Your task to perform on an android device: What's the weather? Image 0: 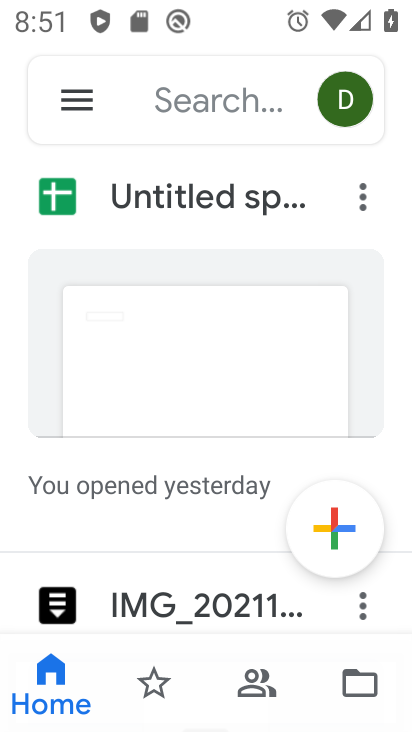
Step 0: press home button
Your task to perform on an android device: What's the weather? Image 1: 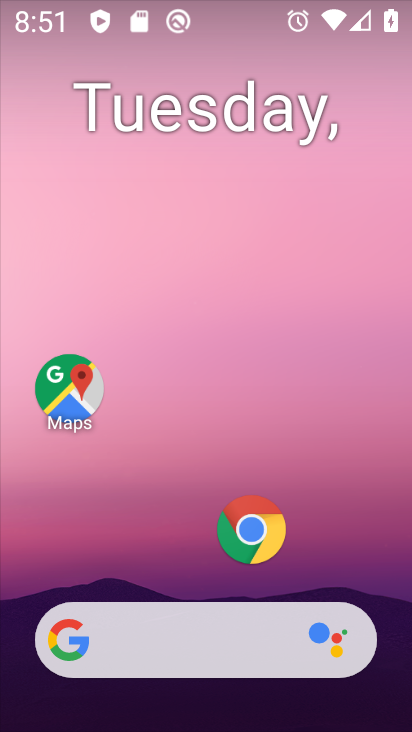
Step 1: drag from (19, 240) to (409, 205)
Your task to perform on an android device: What's the weather? Image 2: 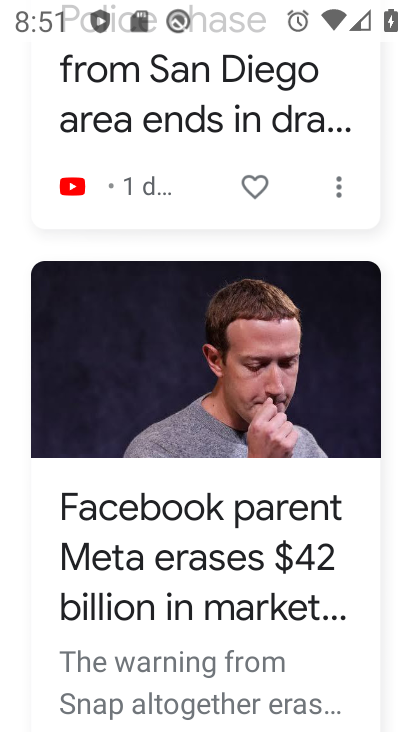
Step 2: drag from (210, 120) to (197, 456)
Your task to perform on an android device: What's the weather? Image 3: 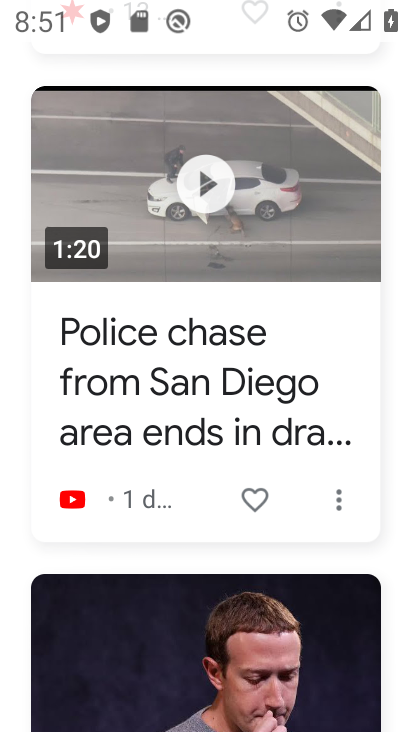
Step 3: drag from (253, 172) to (260, 625)
Your task to perform on an android device: What's the weather? Image 4: 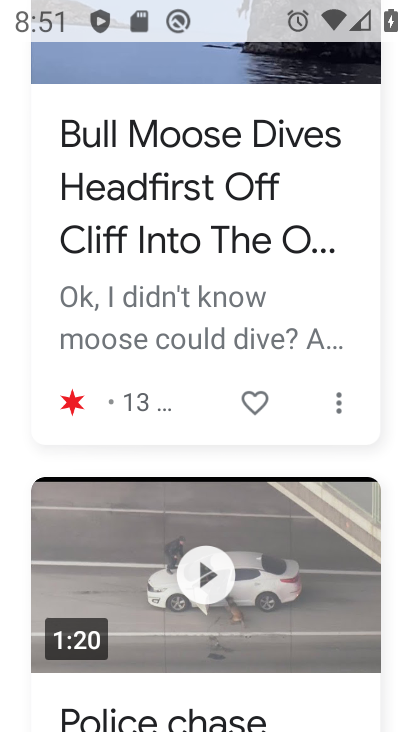
Step 4: drag from (241, 111) to (247, 646)
Your task to perform on an android device: What's the weather? Image 5: 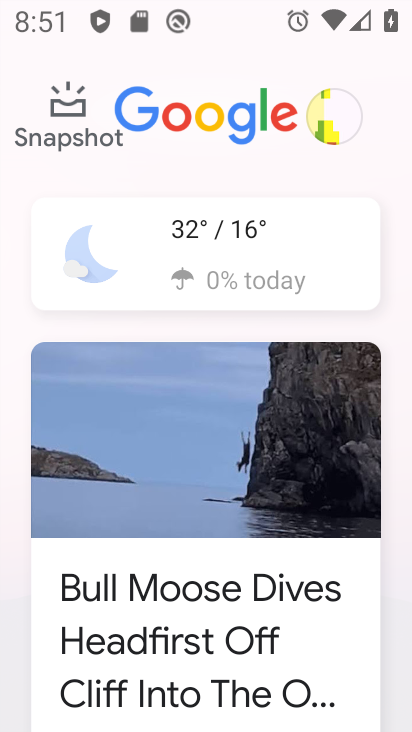
Step 5: click (230, 245)
Your task to perform on an android device: What's the weather? Image 6: 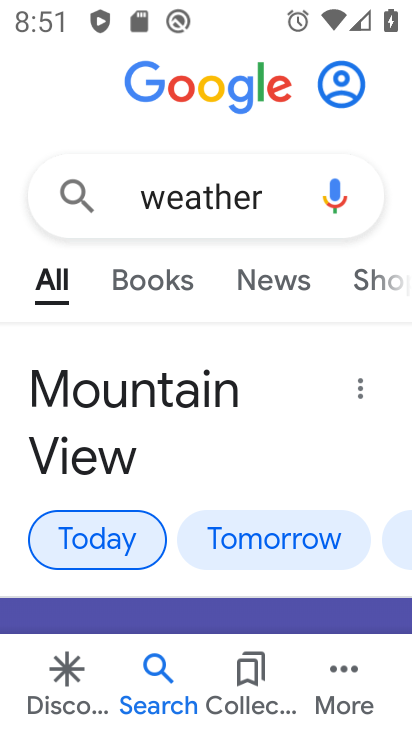
Step 6: task complete